Your task to perform on an android device: Open Google Chrome and click the shortcut for Amazon.com Image 0: 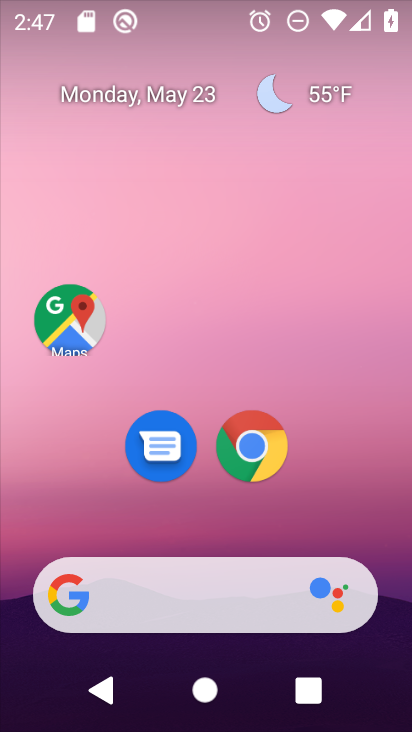
Step 0: click (271, 462)
Your task to perform on an android device: Open Google Chrome and click the shortcut for Amazon.com Image 1: 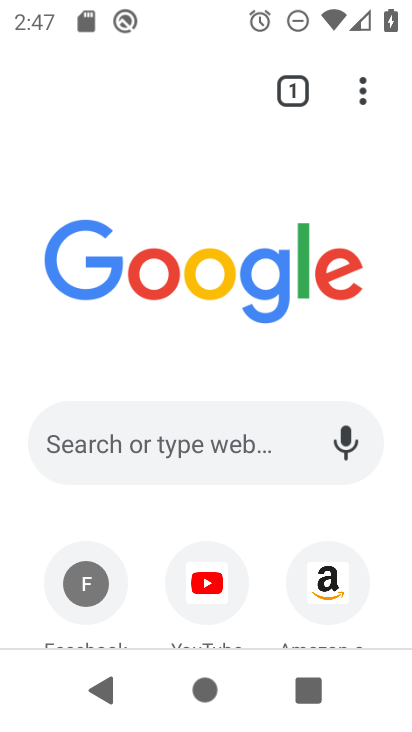
Step 1: click (337, 577)
Your task to perform on an android device: Open Google Chrome and click the shortcut for Amazon.com Image 2: 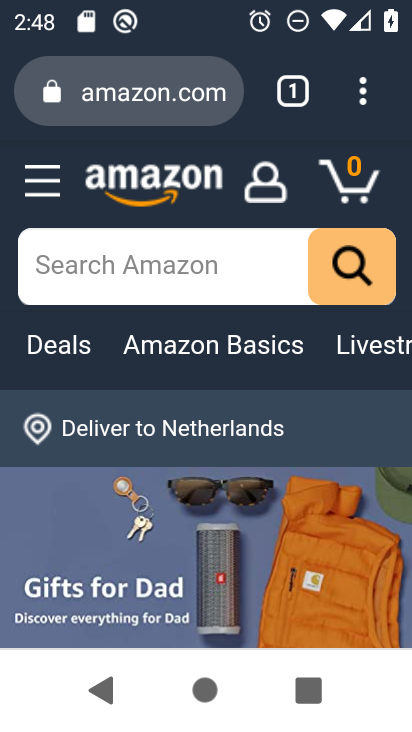
Step 2: task complete